Your task to perform on an android device: find which apps use the phone's location Image 0: 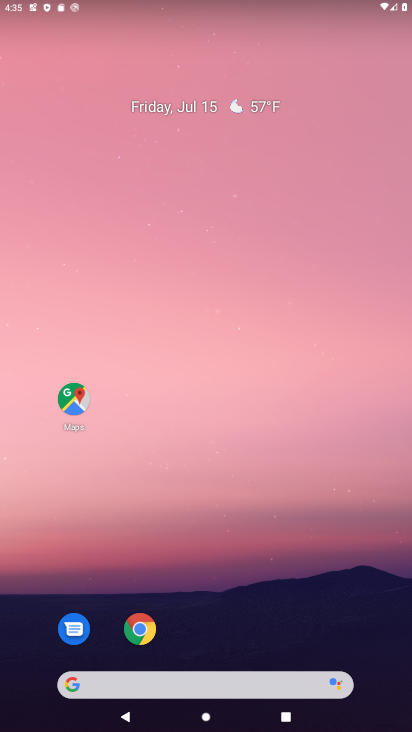
Step 0: press home button
Your task to perform on an android device: find which apps use the phone's location Image 1: 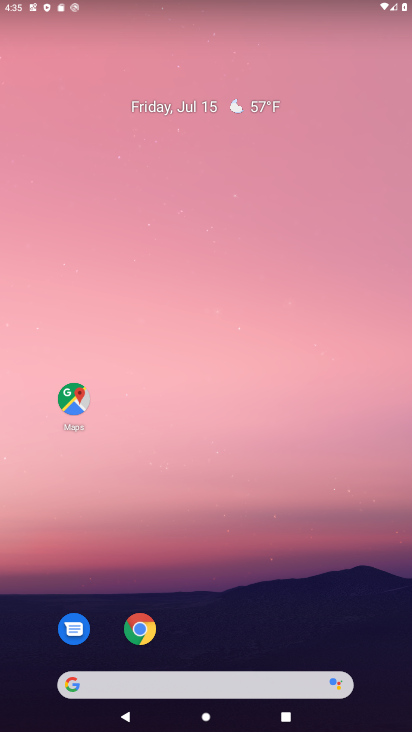
Step 1: drag from (306, 650) to (318, 3)
Your task to perform on an android device: find which apps use the phone's location Image 2: 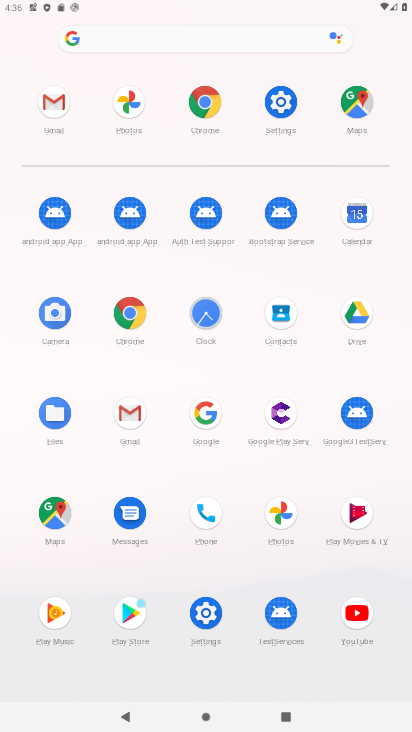
Step 2: click (282, 110)
Your task to perform on an android device: find which apps use the phone's location Image 3: 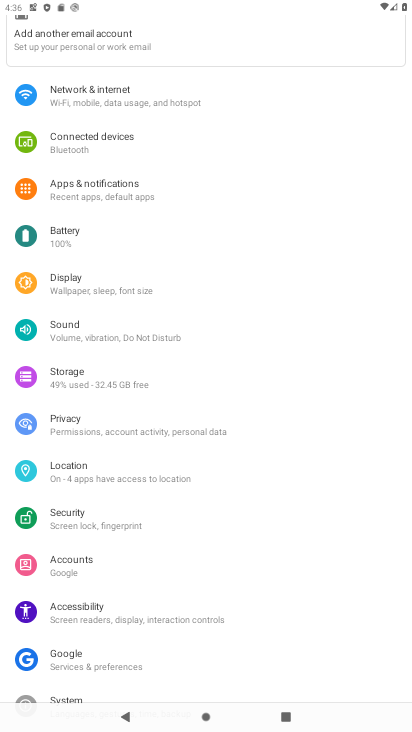
Step 3: click (84, 480)
Your task to perform on an android device: find which apps use the phone's location Image 4: 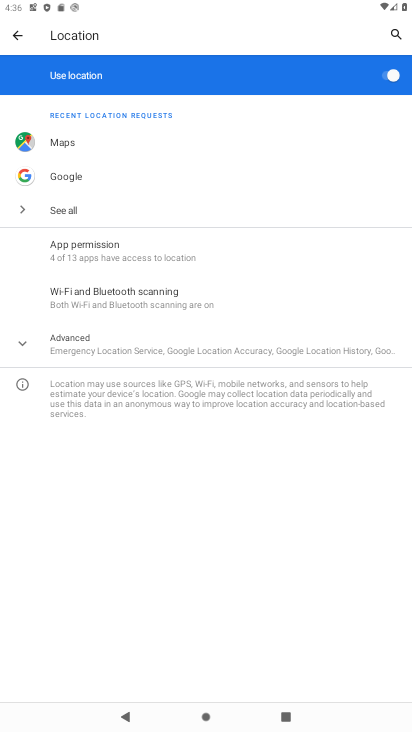
Step 4: click (73, 242)
Your task to perform on an android device: find which apps use the phone's location Image 5: 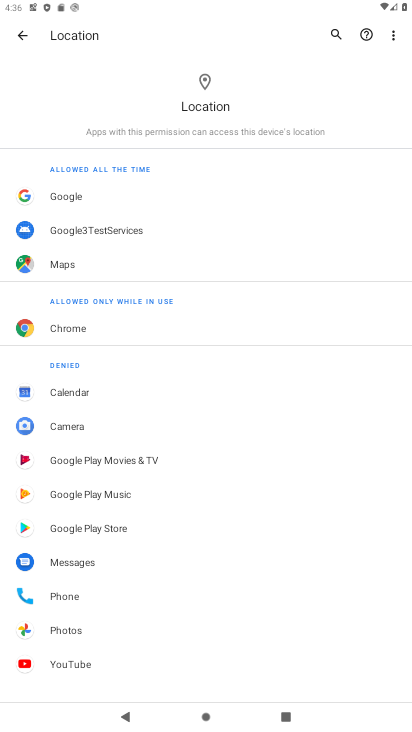
Step 5: task complete